Your task to perform on an android device: open sync settings in chrome Image 0: 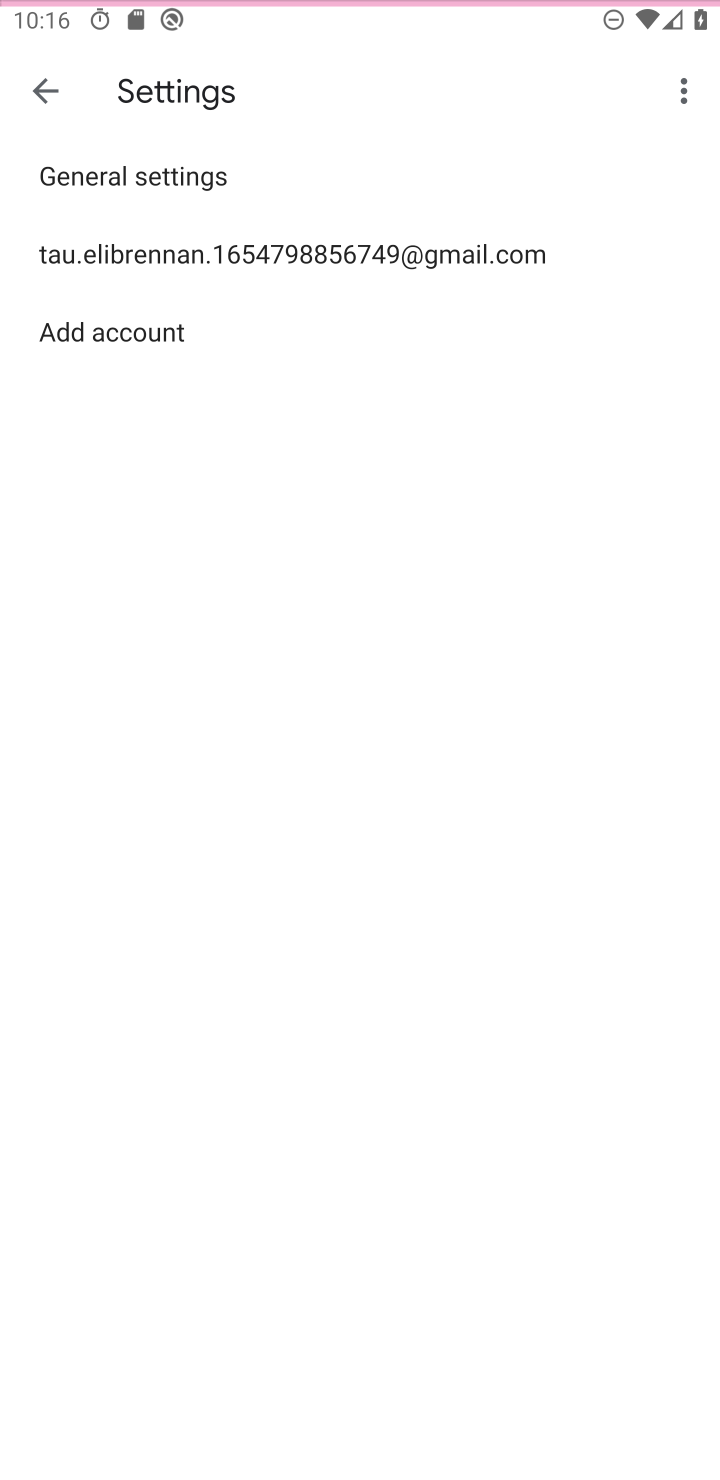
Step 0: press home button
Your task to perform on an android device: open sync settings in chrome Image 1: 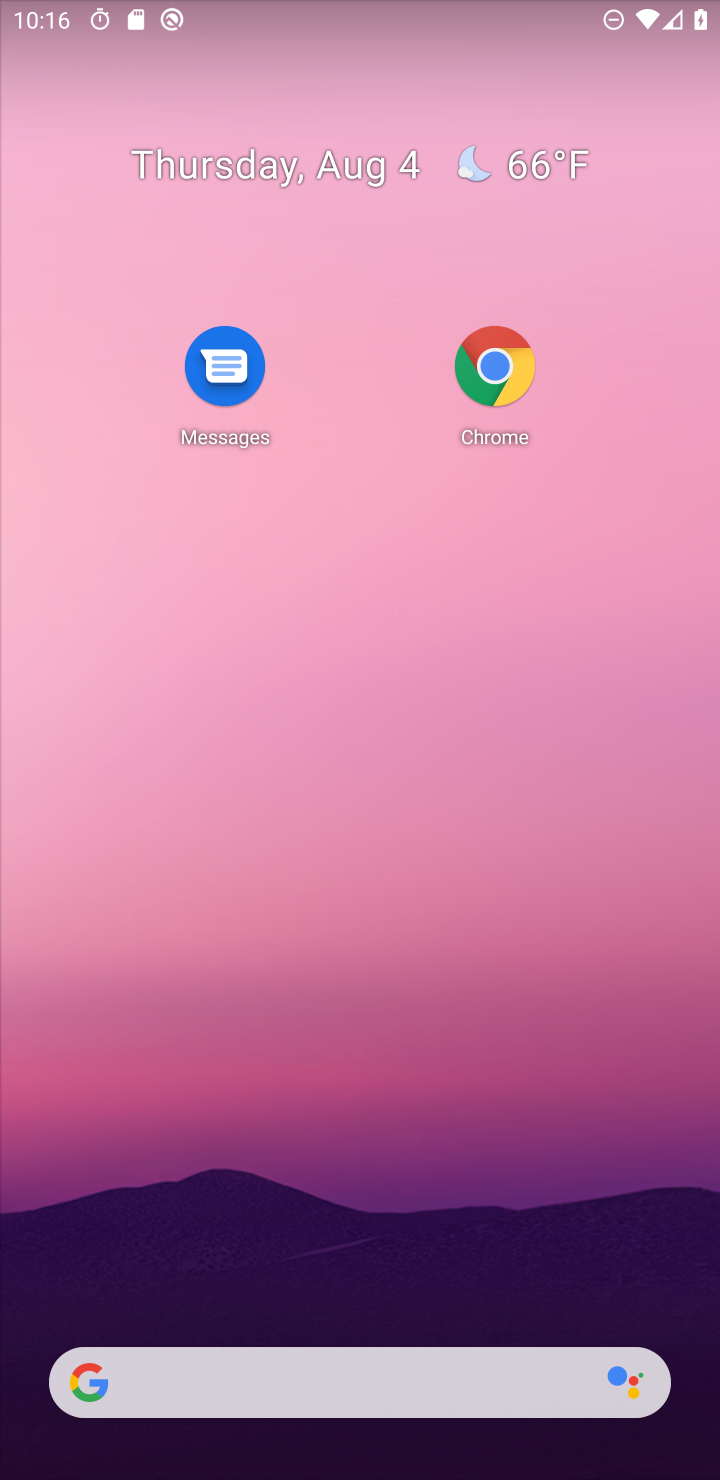
Step 1: click (505, 356)
Your task to perform on an android device: open sync settings in chrome Image 2: 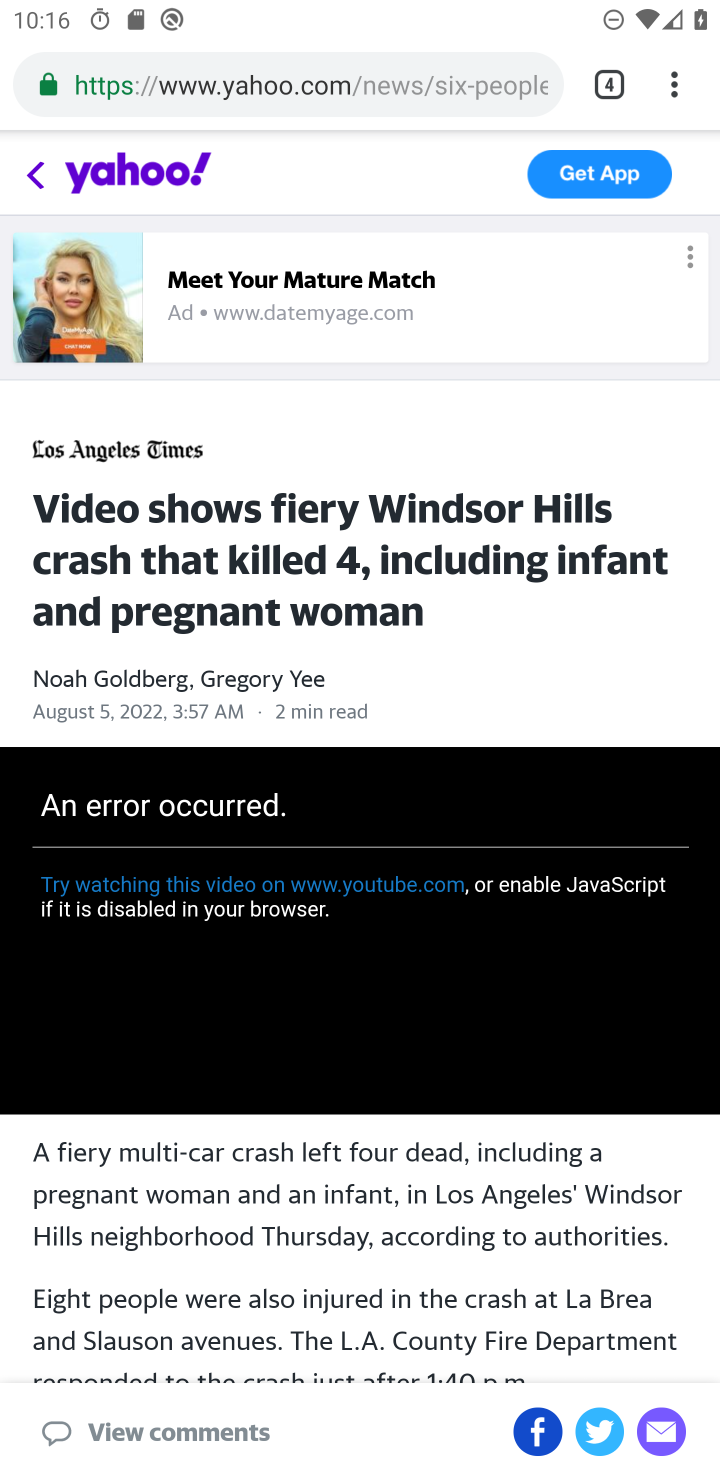
Step 2: click (670, 92)
Your task to perform on an android device: open sync settings in chrome Image 3: 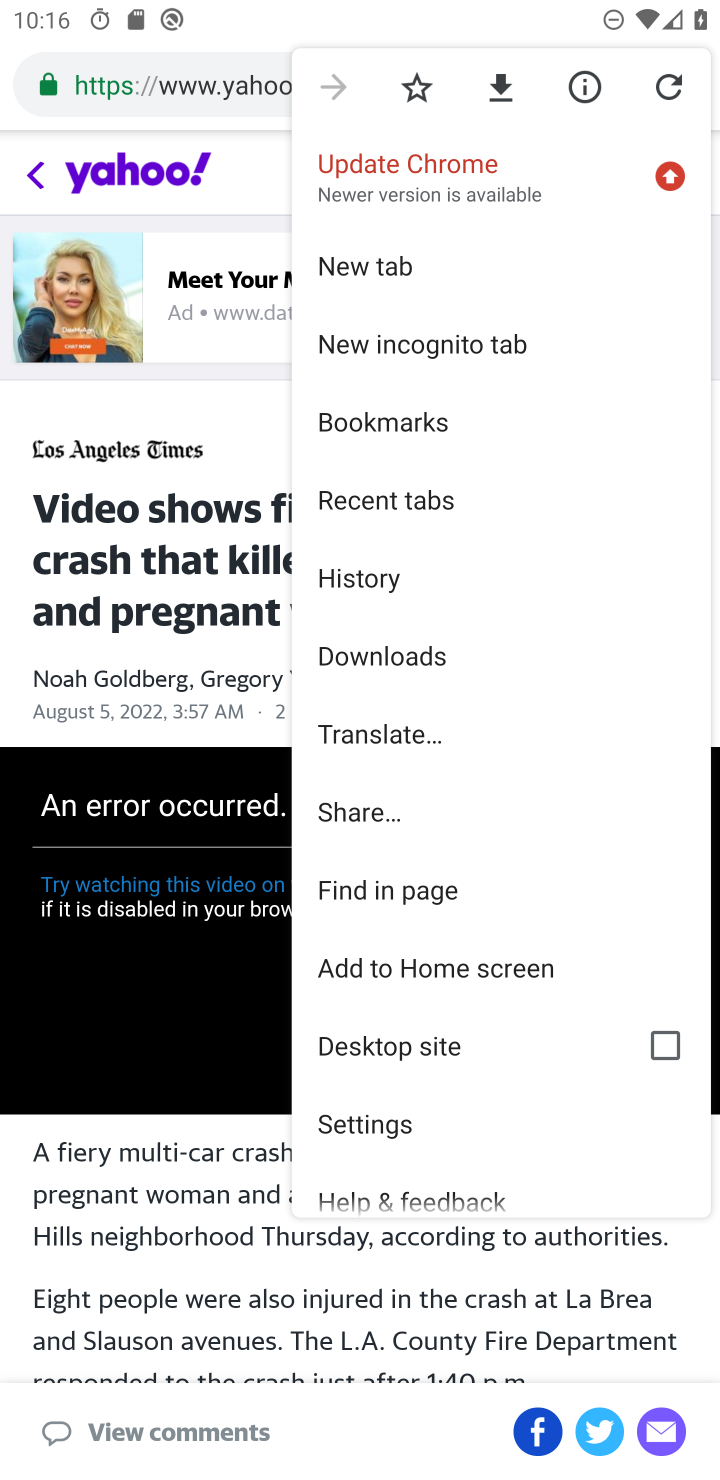
Step 3: click (381, 1107)
Your task to perform on an android device: open sync settings in chrome Image 4: 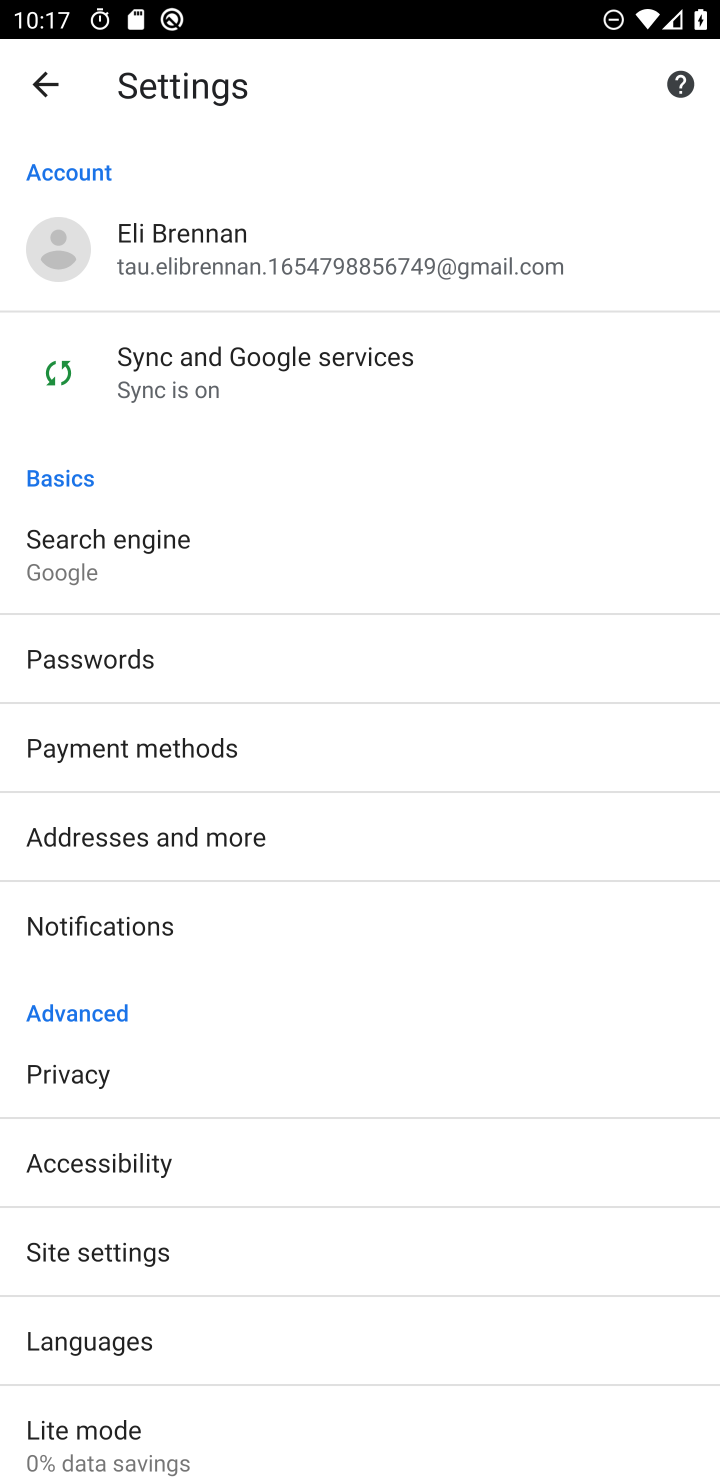
Step 4: click (161, 1247)
Your task to perform on an android device: open sync settings in chrome Image 5: 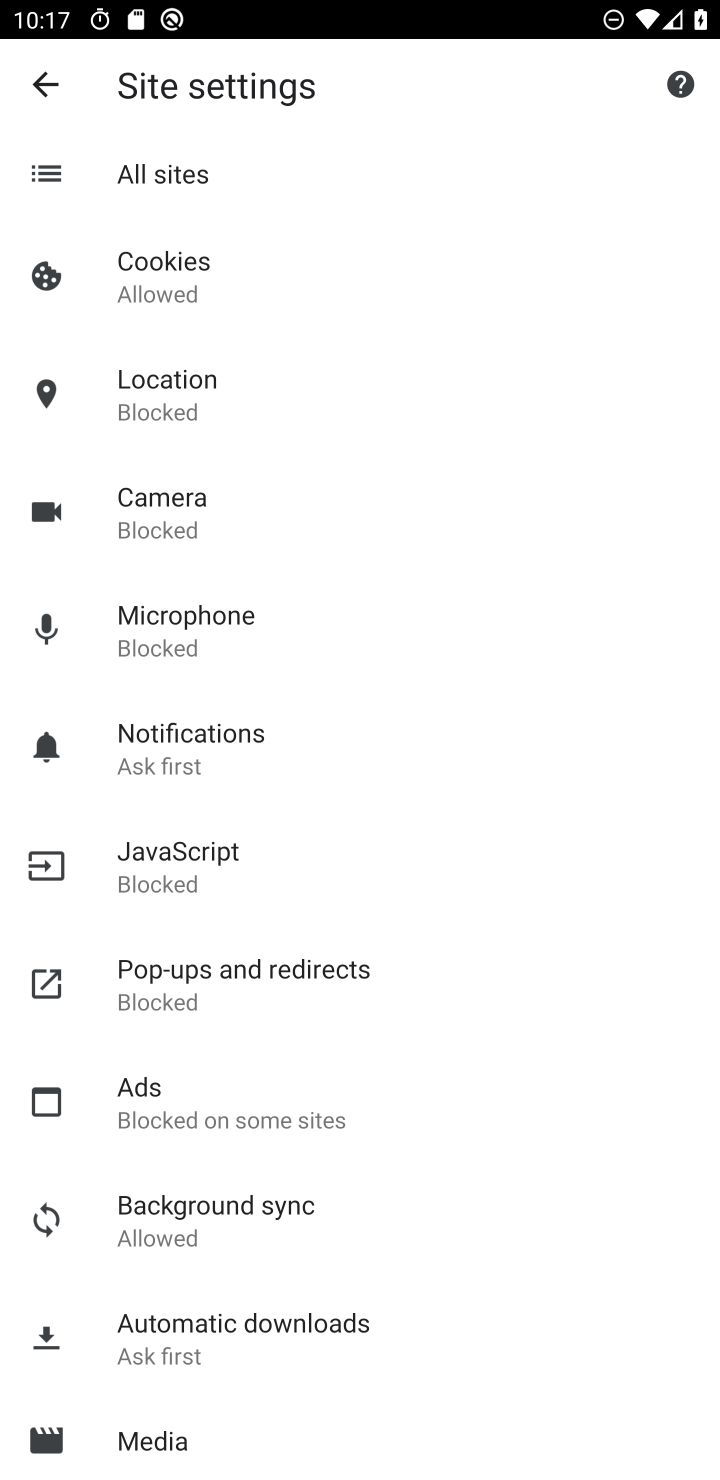
Step 5: click (163, 1239)
Your task to perform on an android device: open sync settings in chrome Image 6: 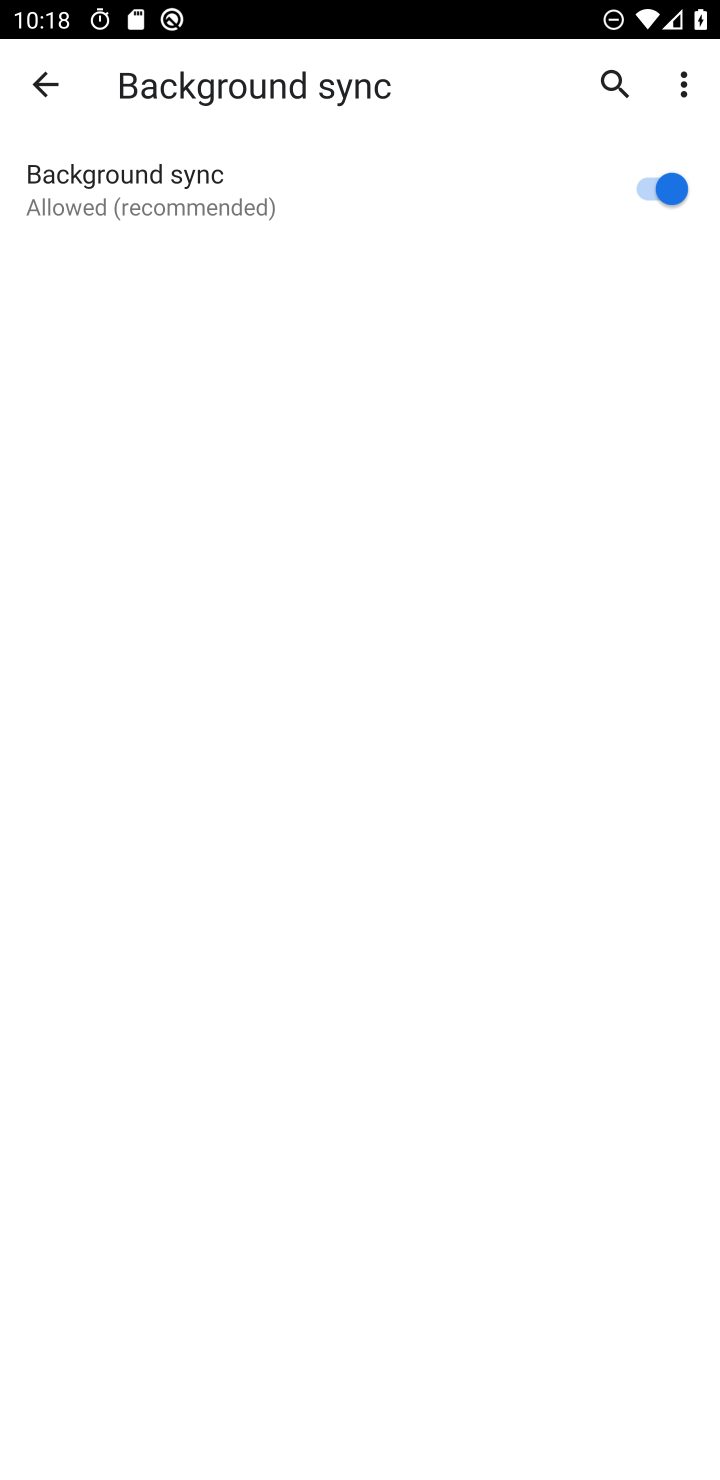
Step 6: task complete